Your task to perform on an android device: set an alarm Image 0: 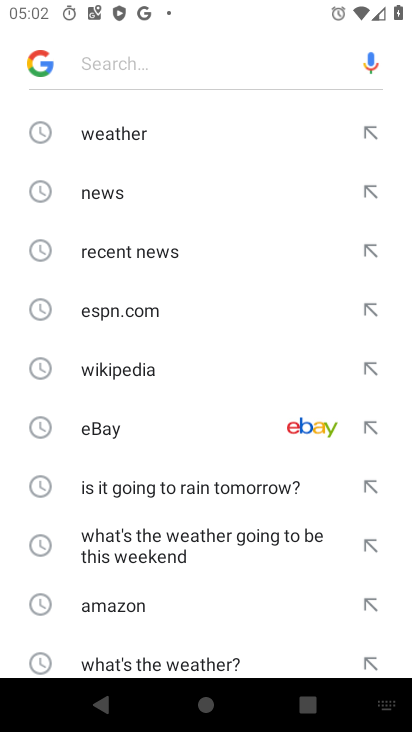
Step 0: press back button
Your task to perform on an android device: set an alarm Image 1: 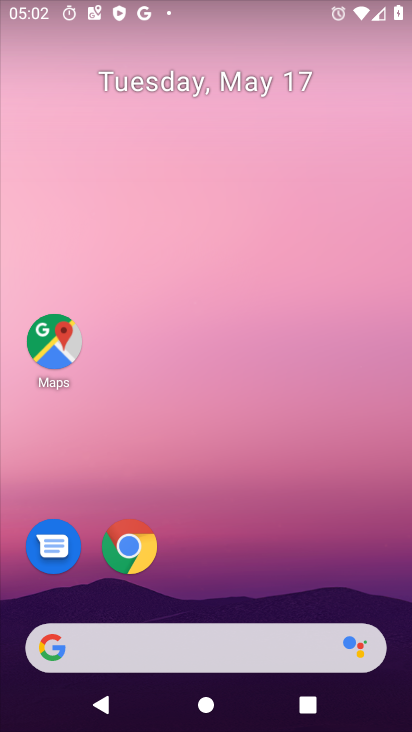
Step 1: drag from (404, 637) to (368, 367)
Your task to perform on an android device: set an alarm Image 2: 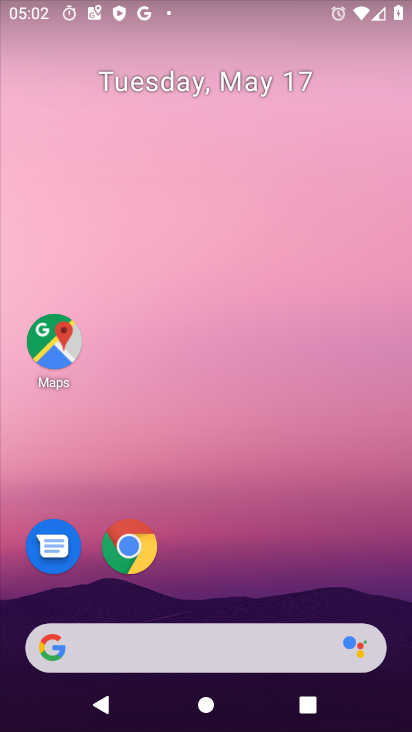
Step 2: drag from (407, 674) to (355, 388)
Your task to perform on an android device: set an alarm Image 3: 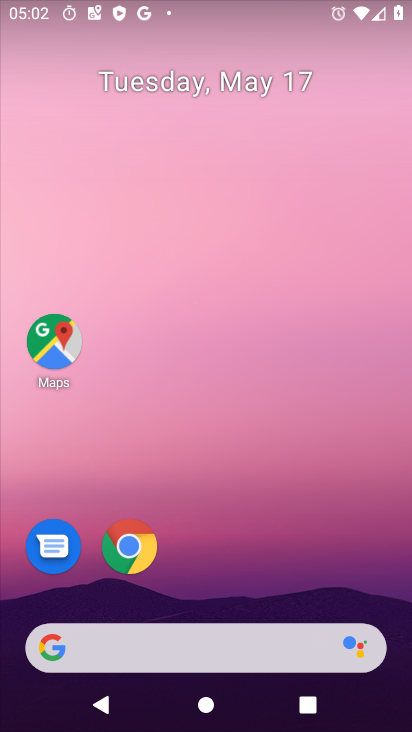
Step 3: click (404, 673)
Your task to perform on an android device: set an alarm Image 4: 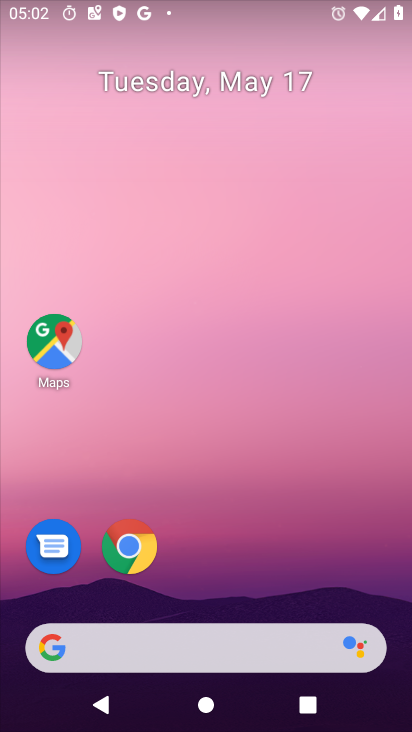
Step 4: drag from (399, 676) to (387, 335)
Your task to perform on an android device: set an alarm Image 5: 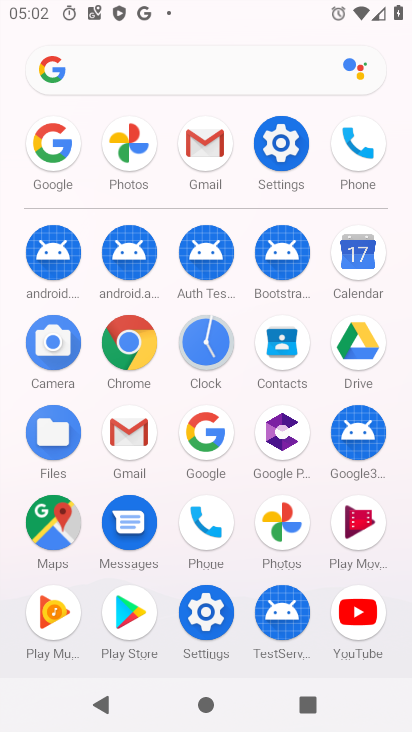
Step 5: click (215, 345)
Your task to perform on an android device: set an alarm Image 6: 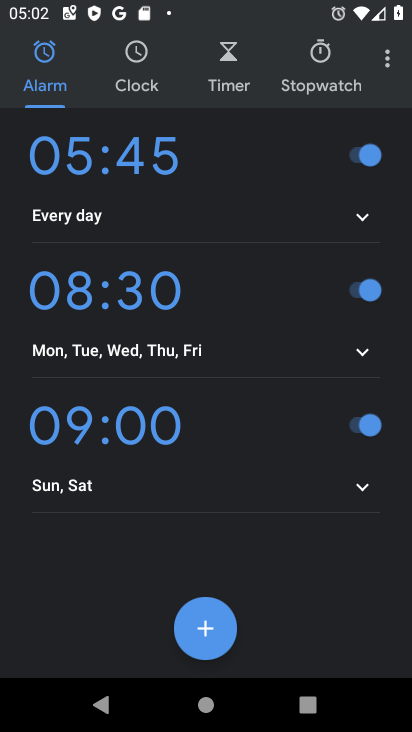
Step 6: click (202, 645)
Your task to perform on an android device: set an alarm Image 7: 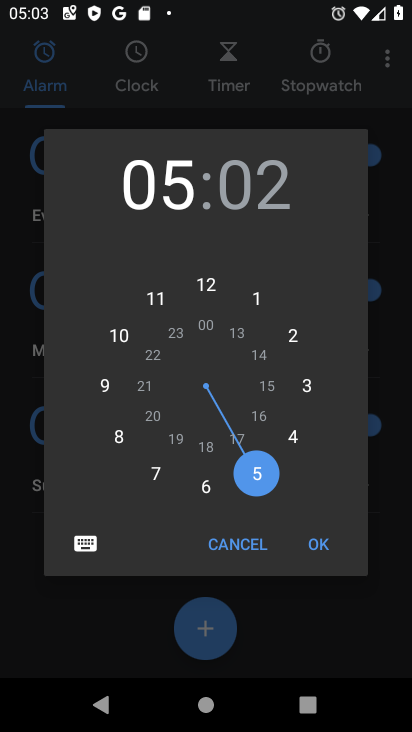
Step 7: click (287, 337)
Your task to perform on an android device: set an alarm Image 8: 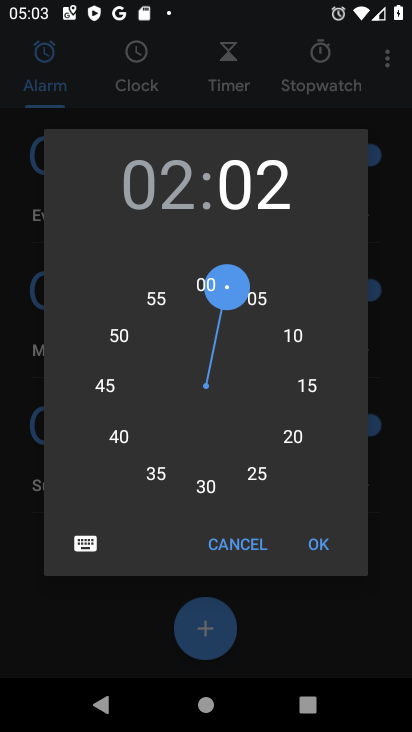
Step 8: click (307, 540)
Your task to perform on an android device: set an alarm Image 9: 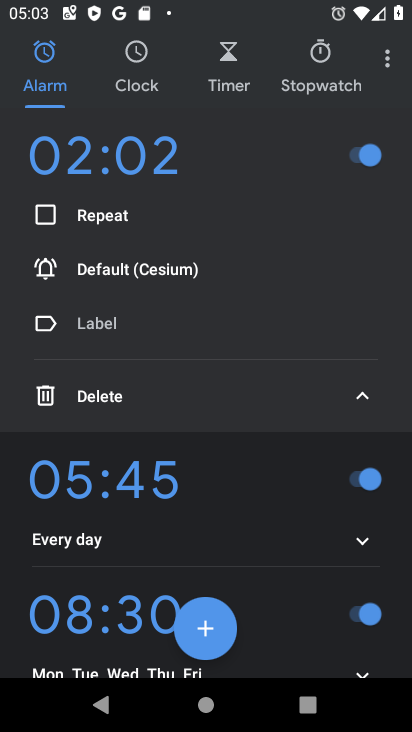
Step 9: click (358, 400)
Your task to perform on an android device: set an alarm Image 10: 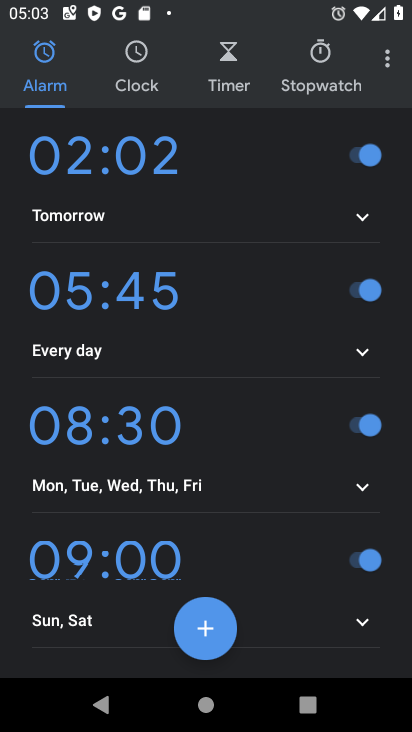
Step 10: task complete